Your task to perform on an android device: visit the assistant section in the google photos Image 0: 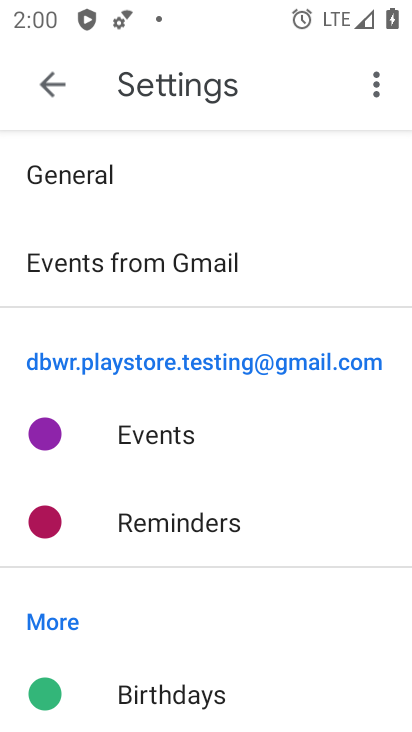
Step 0: press back button
Your task to perform on an android device: visit the assistant section in the google photos Image 1: 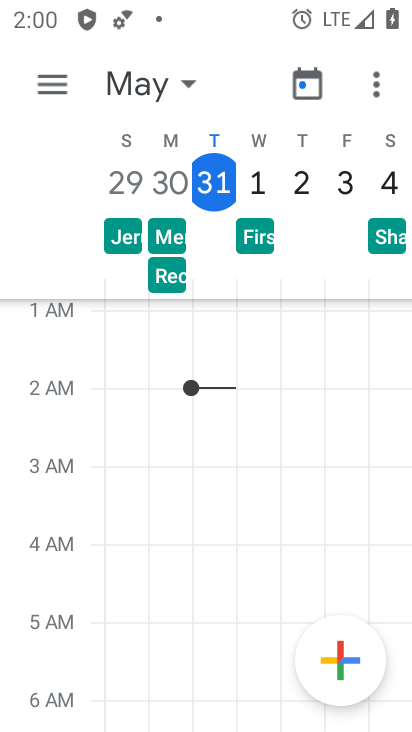
Step 1: press home button
Your task to perform on an android device: visit the assistant section in the google photos Image 2: 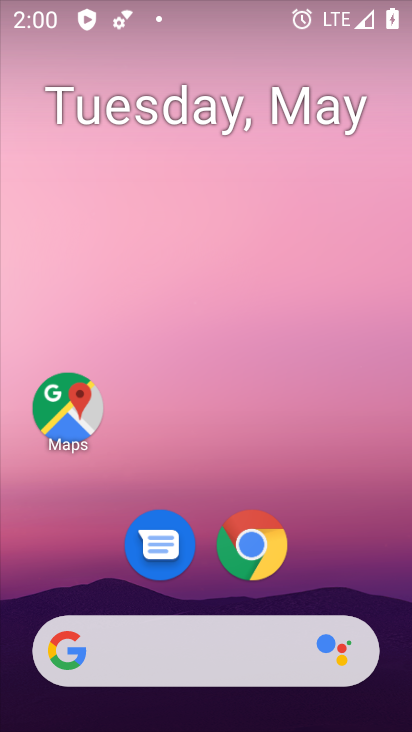
Step 2: drag from (366, 566) to (272, 1)
Your task to perform on an android device: visit the assistant section in the google photos Image 3: 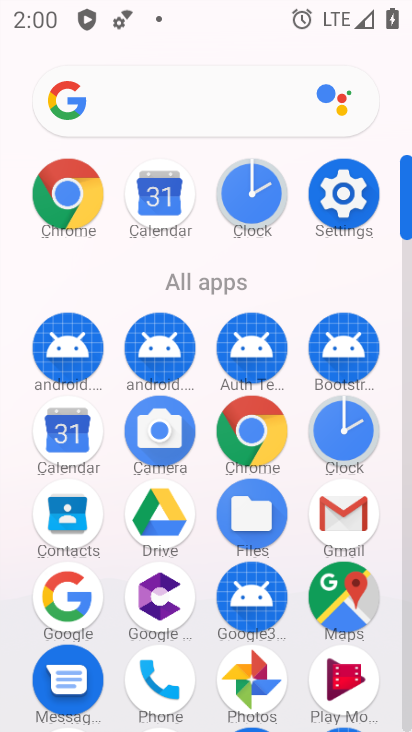
Step 3: drag from (10, 560) to (5, 214)
Your task to perform on an android device: visit the assistant section in the google photos Image 4: 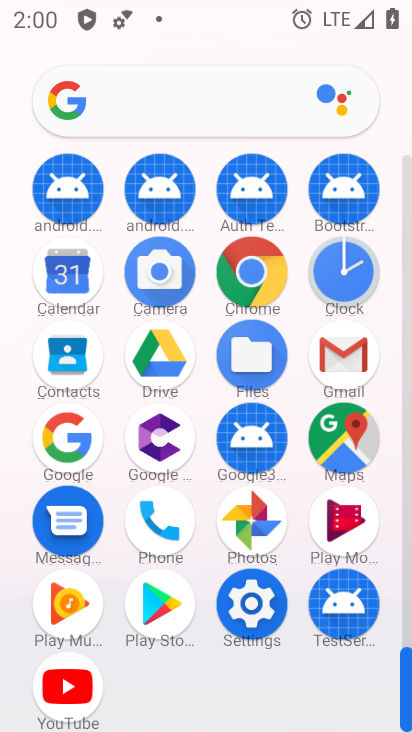
Step 4: click (250, 528)
Your task to perform on an android device: visit the assistant section in the google photos Image 5: 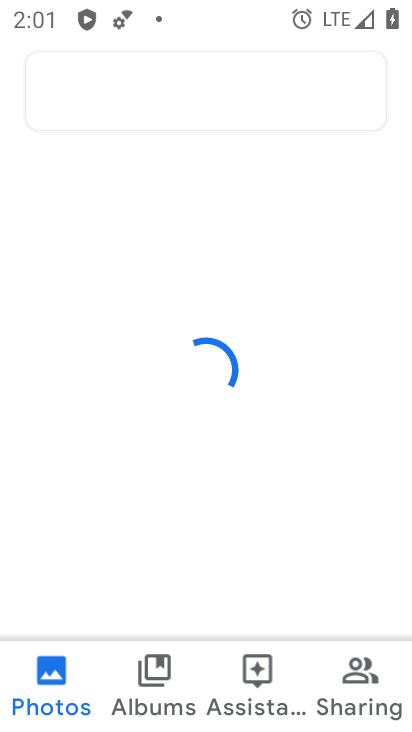
Step 5: click (256, 667)
Your task to perform on an android device: visit the assistant section in the google photos Image 6: 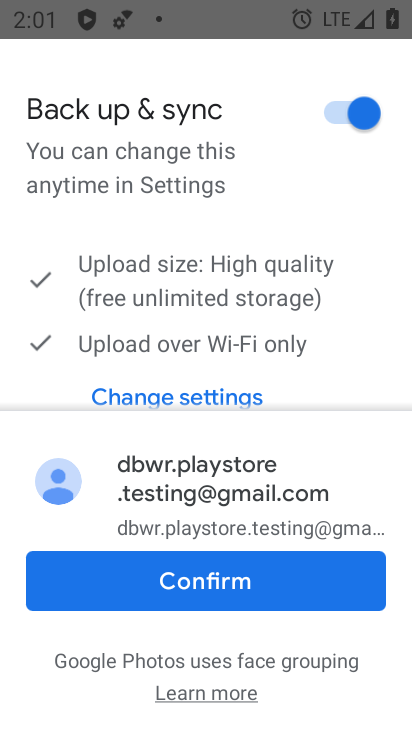
Step 6: click (261, 588)
Your task to perform on an android device: visit the assistant section in the google photos Image 7: 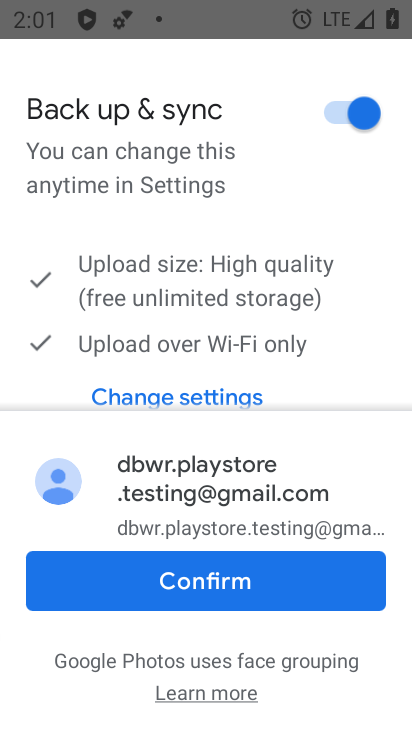
Step 7: click (262, 587)
Your task to perform on an android device: visit the assistant section in the google photos Image 8: 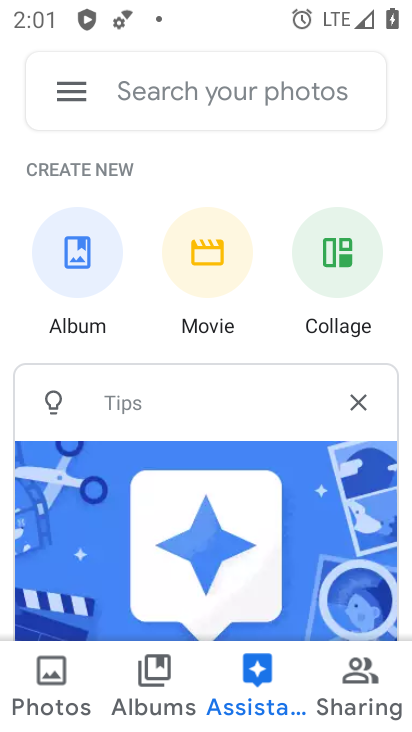
Step 8: task complete